Your task to perform on an android device: Open the calendar app, open the side menu, and click the "Day" option Image 0: 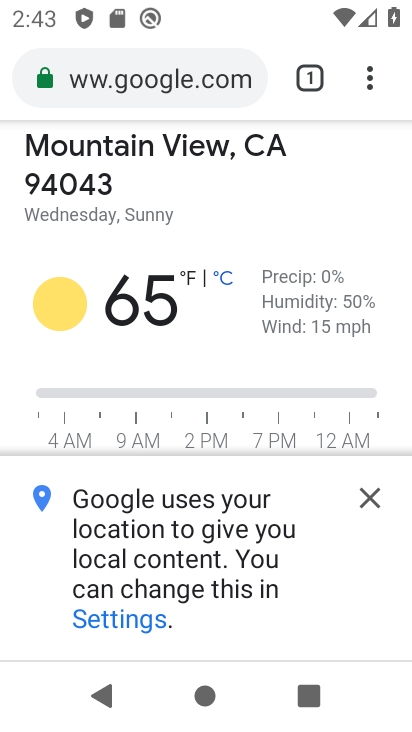
Step 0: press home button
Your task to perform on an android device: Open the calendar app, open the side menu, and click the "Day" option Image 1: 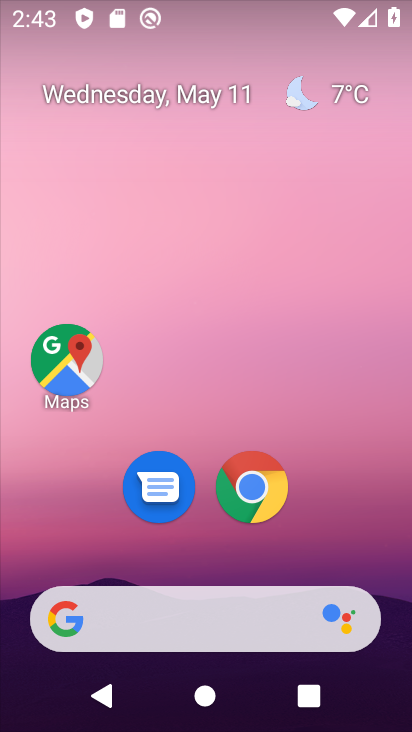
Step 1: drag from (207, 635) to (240, 25)
Your task to perform on an android device: Open the calendar app, open the side menu, and click the "Day" option Image 2: 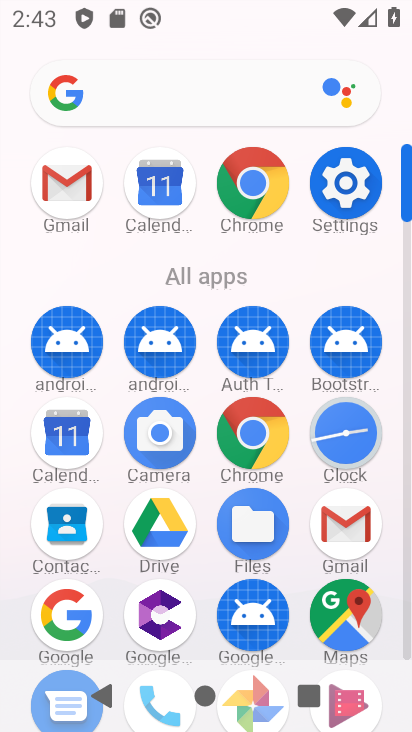
Step 2: click (57, 432)
Your task to perform on an android device: Open the calendar app, open the side menu, and click the "Day" option Image 3: 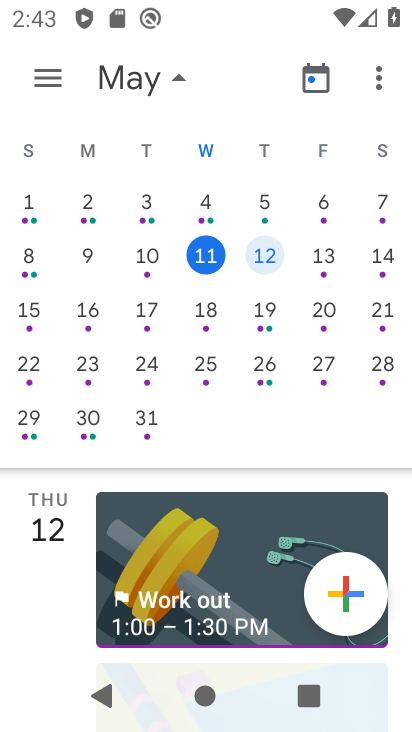
Step 3: click (50, 63)
Your task to perform on an android device: Open the calendar app, open the side menu, and click the "Day" option Image 4: 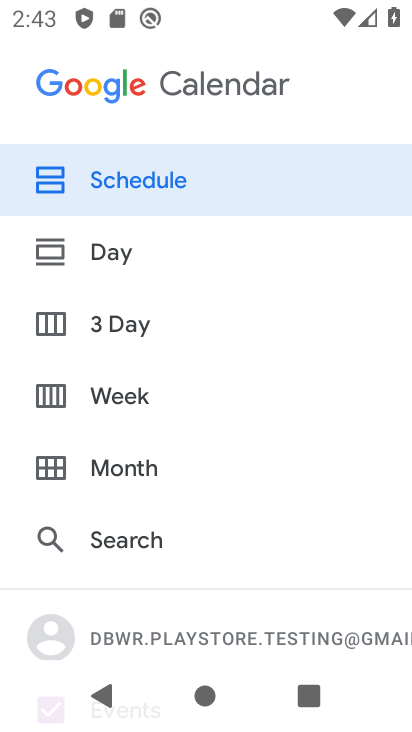
Step 4: click (104, 264)
Your task to perform on an android device: Open the calendar app, open the side menu, and click the "Day" option Image 5: 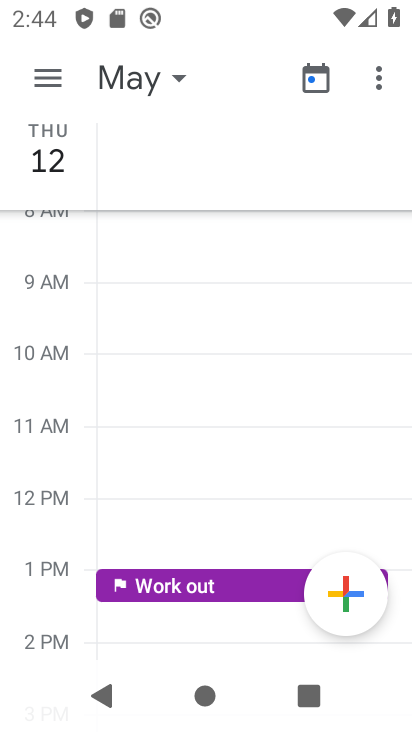
Step 5: task complete